Your task to perform on an android device: turn on translation in the chrome app Image 0: 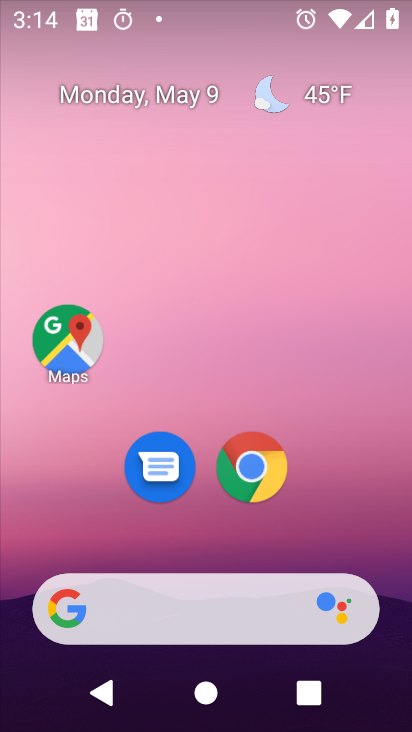
Step 0: click (264, 463)
Your task to perform on an android device: turn on translation in the chrome app Image 1: 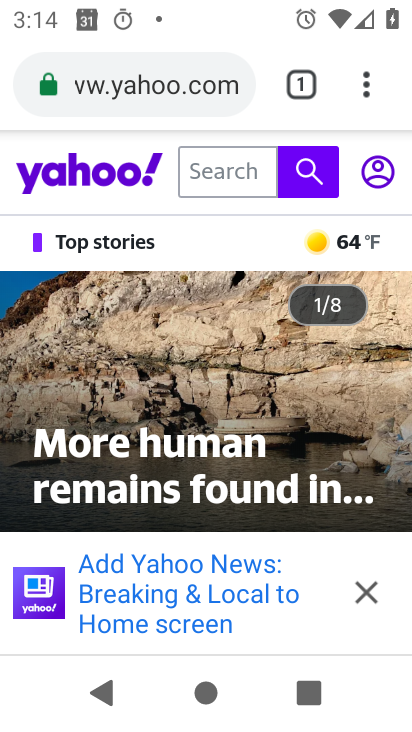
Step 1: drag from (372, 89) to (175, 518)
Your task to perform on an android device: turn on translation in the chrome app Image 2: 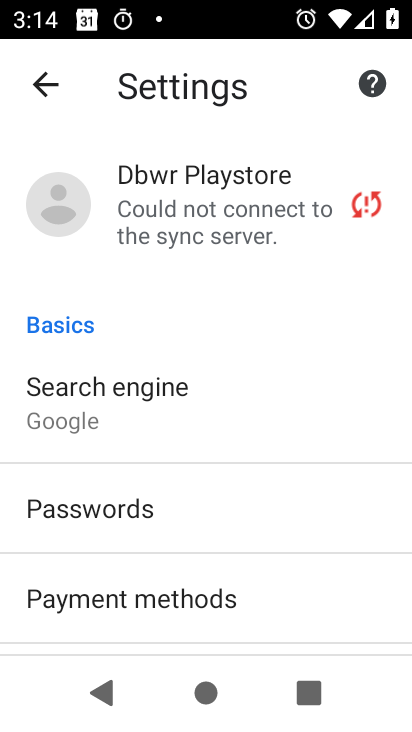
Step 2: drag from (217, 637) to (268, 153)
Your task to perform on an android device: turn on translation in the chrome app Image 3: 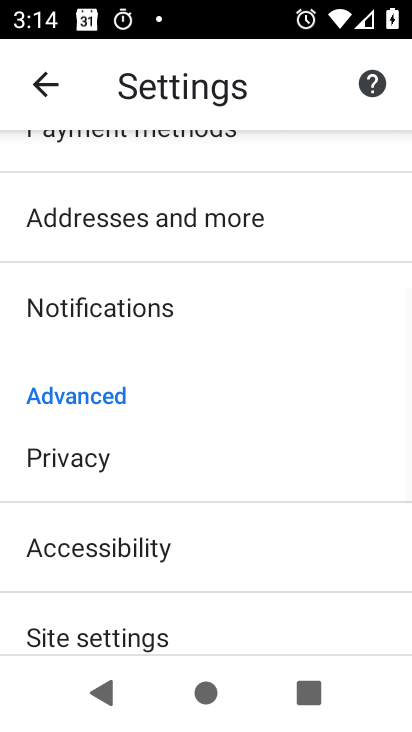
Step 3: drag from (191, 547) to (268, 116)
Your task to perform on an android device: turn on translation in the chrome app Image 4: 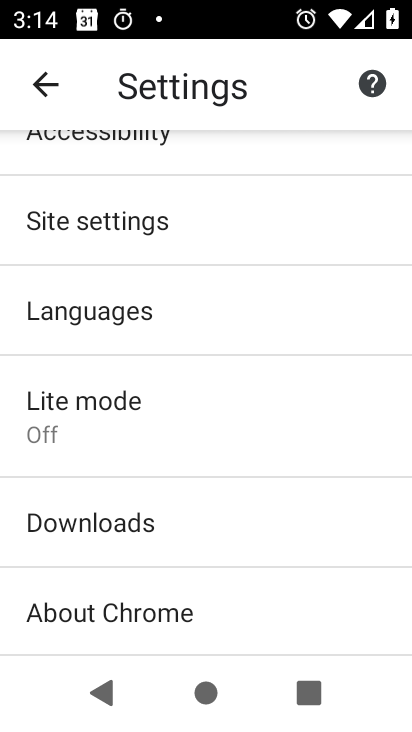
Step 4: click (153, 315)
Your task to perform on an android device: turn on translation in the chrome app Image 5: 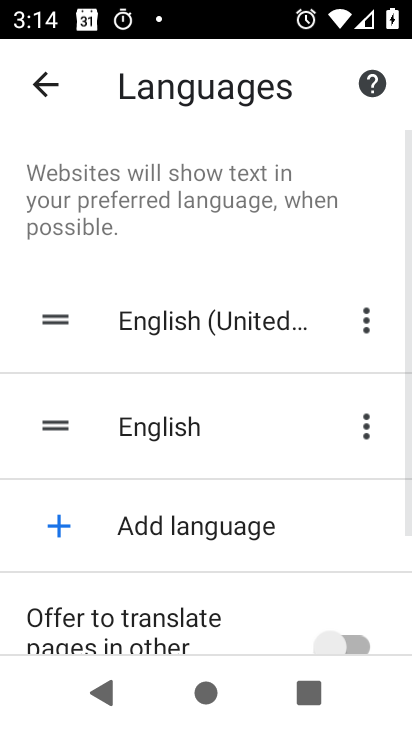
Step 5: drag from (218, 525) to (241, 120)
Your task to perform on an android device: turn on translation in the chrome app Image 6: 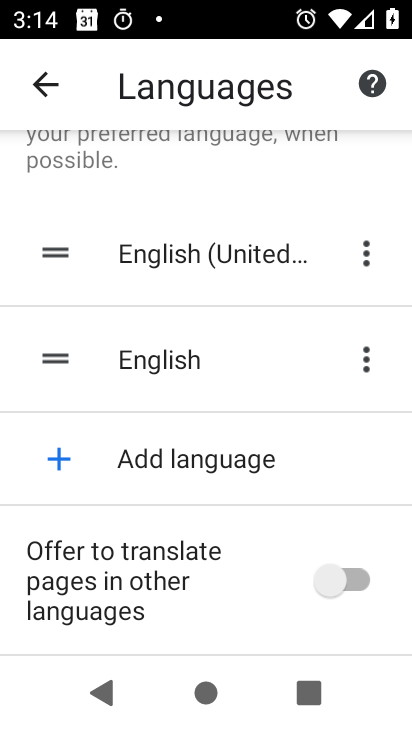
Step 6: click (334, 587)
Your task to perform on an android device: turn on translation in the chrome app Image 7: 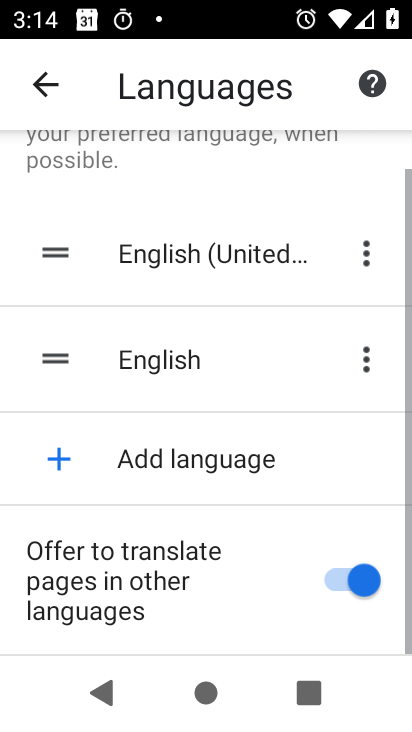
Step 7: task complete